Your task to perform on an android device: Go to location settings Image 0: 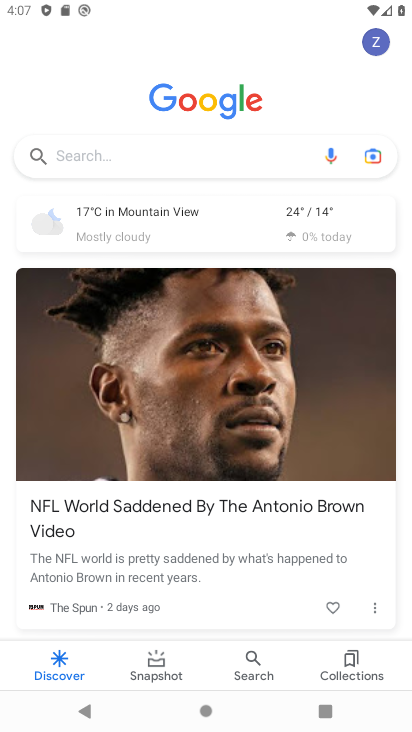
Step 0: press home button
Your task to perform on an android device: Go to location settings Image 1: 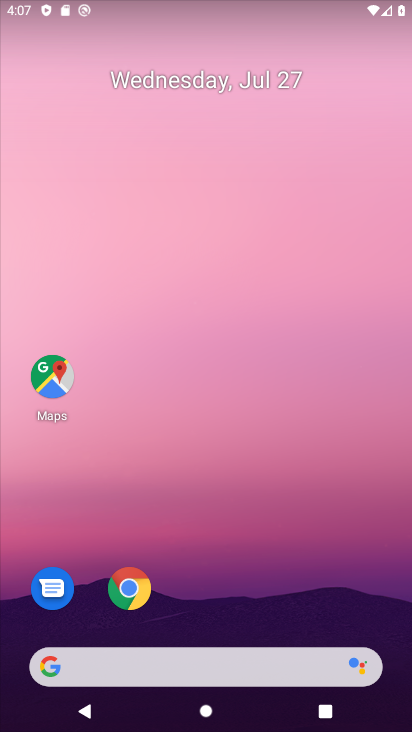
Step 1: drag from (224, 725) to (227, 153)
Your task to perform on an android device: Go to location settings Image 2: 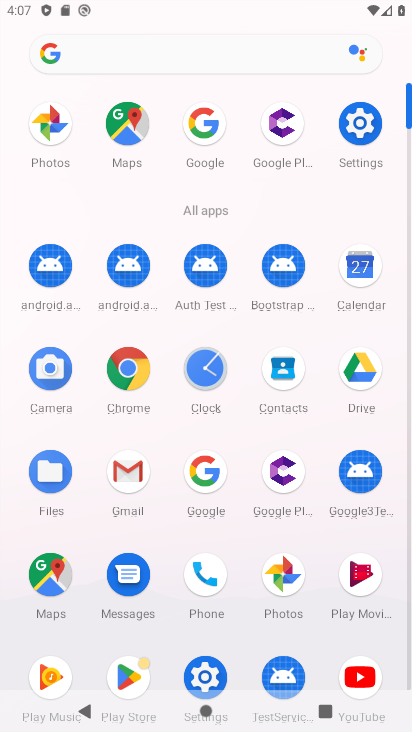
Step 2: click (376, 123)
Your task to perform on an android device: Go to location settings Image 3: 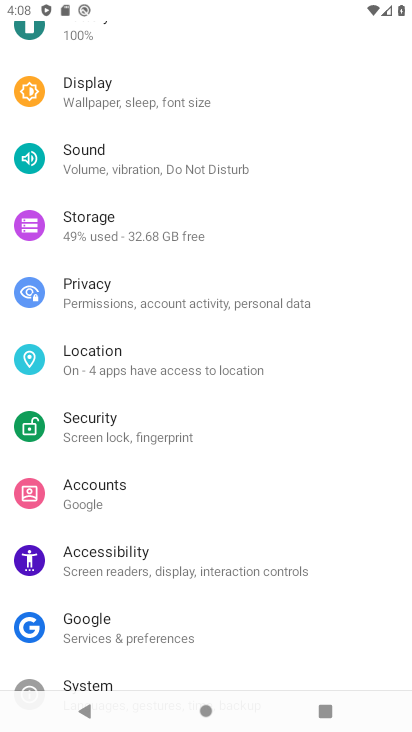
Step 3: click (97, 359)
Your task to perform on an android device: Go to location settings Image 4: 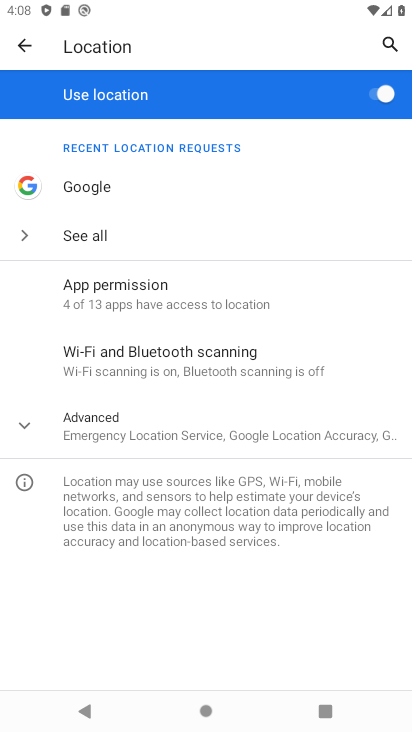
Step 4: task complete